Your task to perform on an android device: change timer sound Image 0: 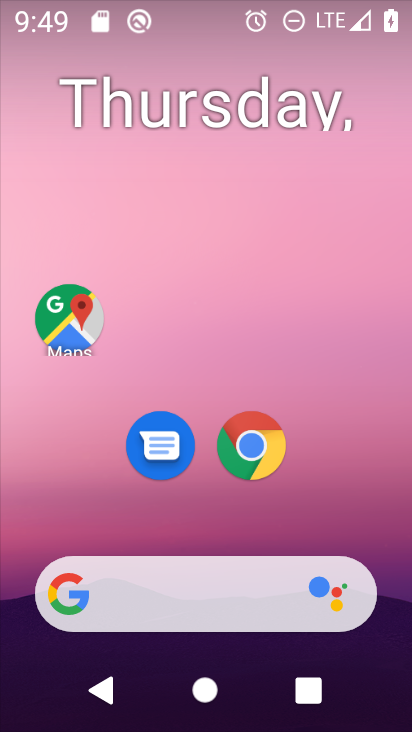
Step 0: drag from (360, 509) to (329, 343)
Your task to perform on an android device: change timer sound Image 1: 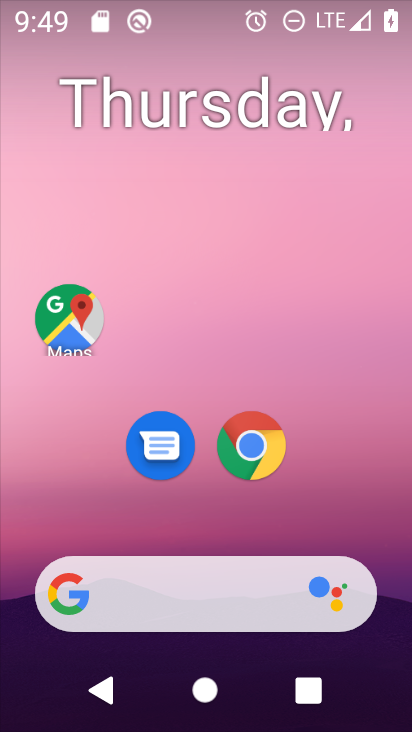
Step 1: drag from (393, 519) to (336, 108)
Your task to perform on an android device: change timer sound Image 2: 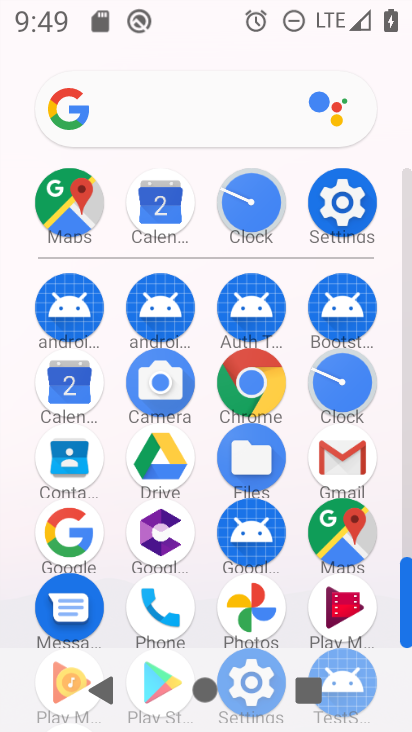
Step 2: click (336, 377)
Your task to perform on an android device: change timer sound Image 3: 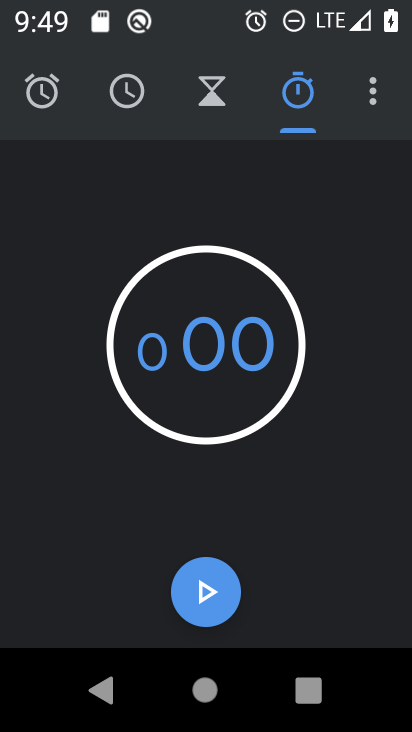
Step 3: click (363, 88)
Your task to perform on an android device: change timer sound Image 4: 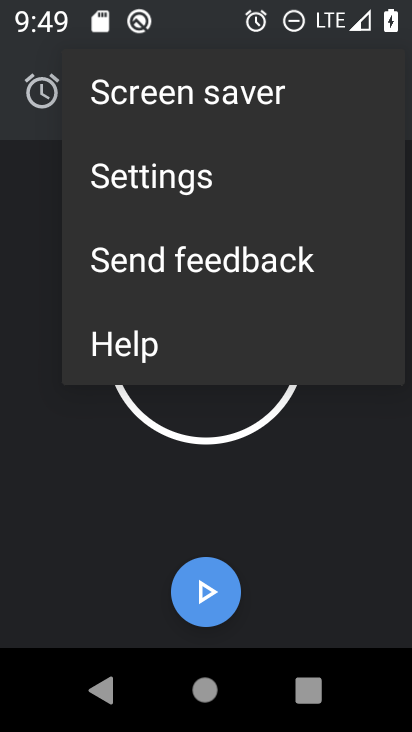
Step 4: click (235, 185)
Your task to perform on an android device: change timer sound Image 5: 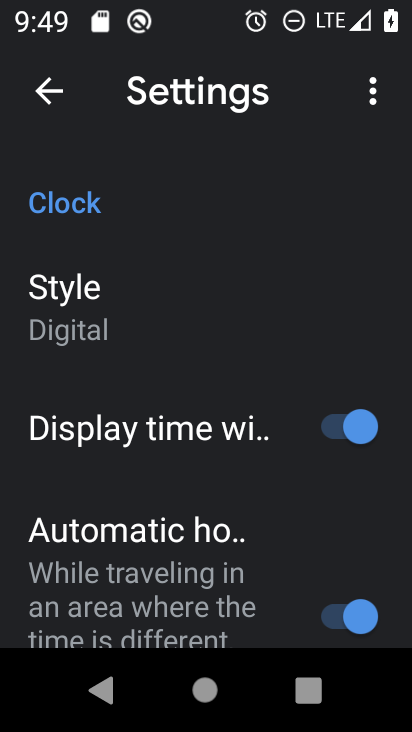
Step 5: drag from (147, 566) to (191, 13)
Your task to perform on an android device: change timer sound Image 6: 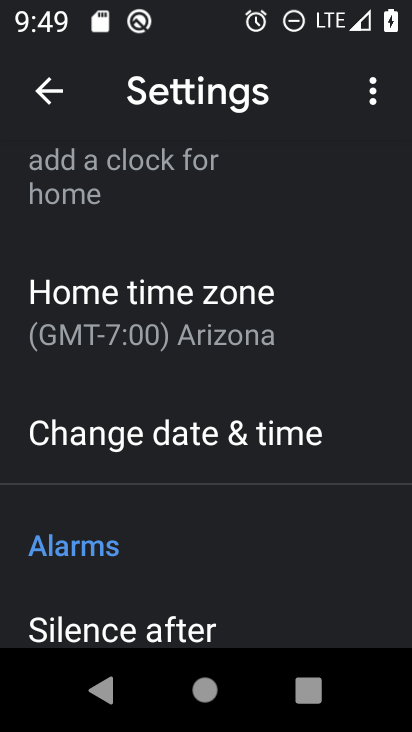
Step 6: drag from (143, 590) to (125, 137)
Your task to perform on an android device: change timer sound Image 7: 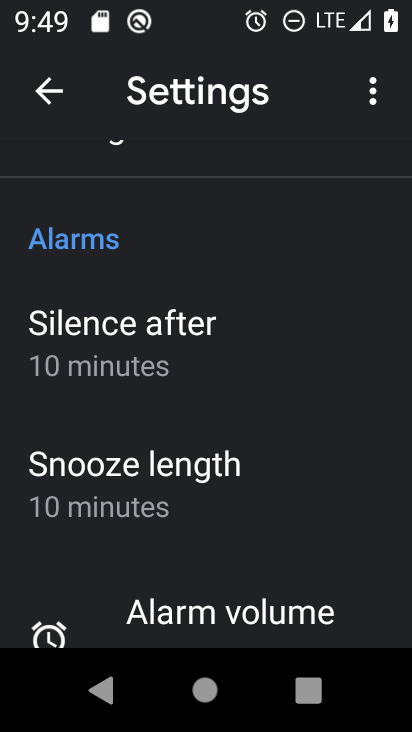
Step 7: drag from (202, 548) to (148, 53)
Your task to perform on an android device: change timer sound Image 8: 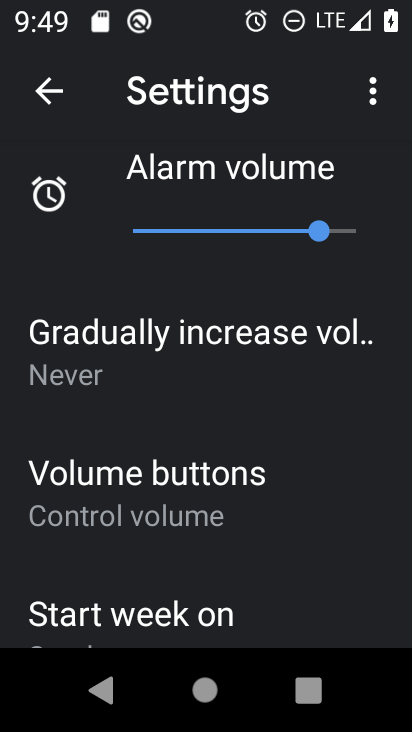
Step 8: click (209, 387)
Your task to perform on an android device: change timer sound Image 9: 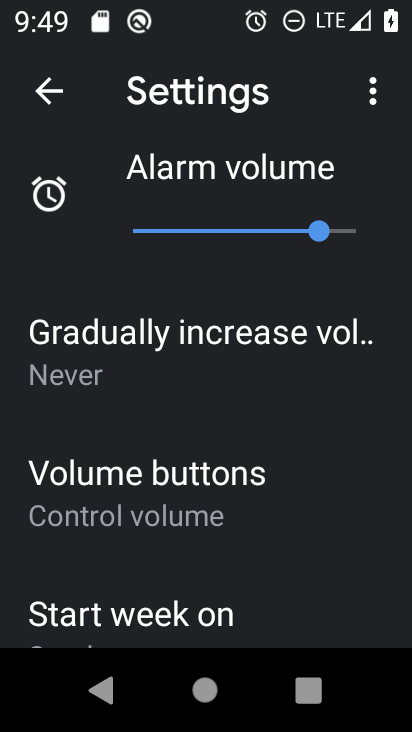
Step 9: drag from (209, 293) to (185, 115)
Your task to perform on an android device: change timer sound Image 10: 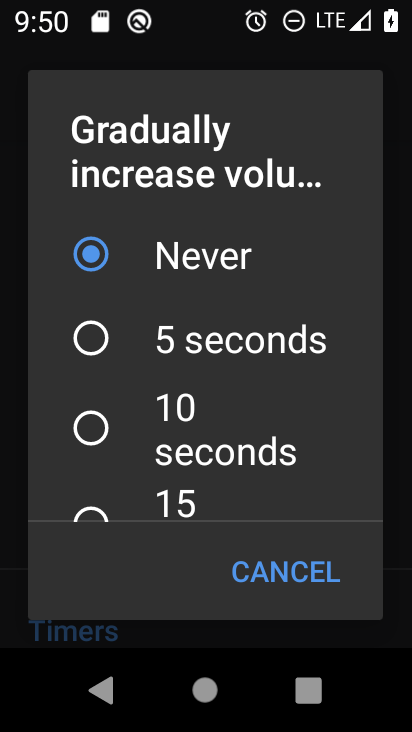
Step 10: press back button
Your task to perform on an android device: change timer sound Image 11: 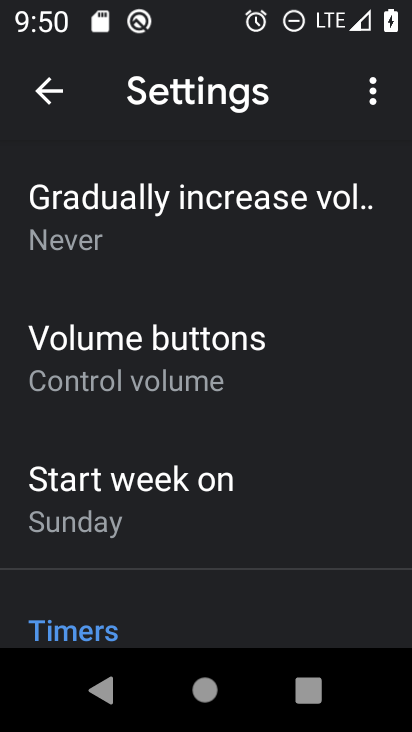
Step 11: click (120, 585)
Your task to perform on an android device: change timer sound Image 12: 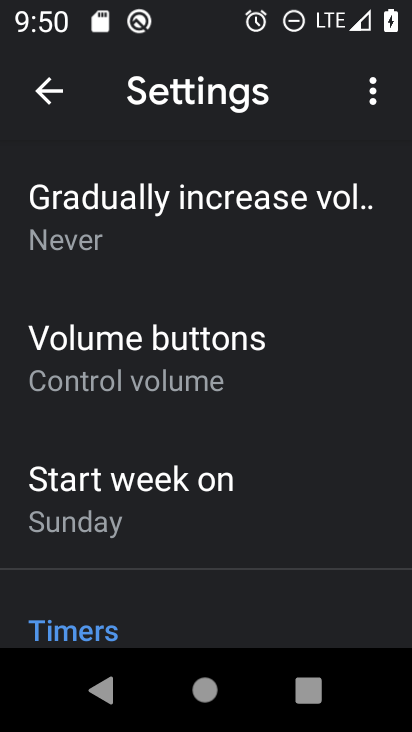
Step 12: drag from (153, 412) to (123, 133)
Your task to perform on an android device: change timer sound Image 13: 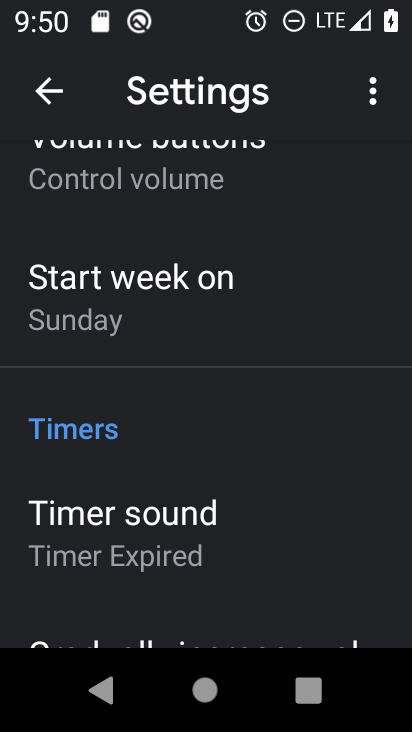
Step 13: click (148, 529)
Your task to perform on an android device: change timer sound Image 14: 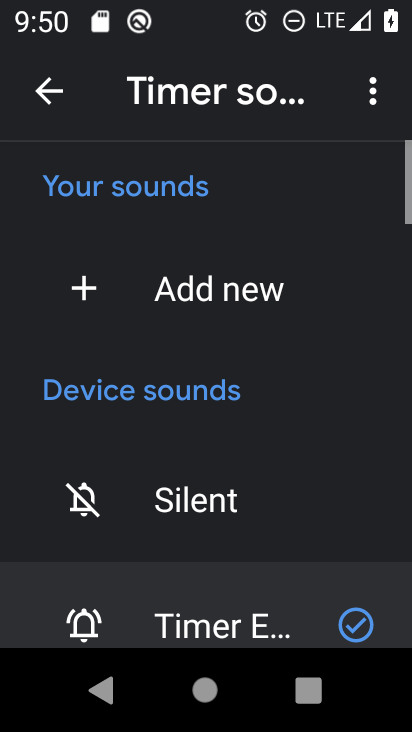
Step 14: click (209, 501)
Your task to perform on an android device: change timer sound Image 15: 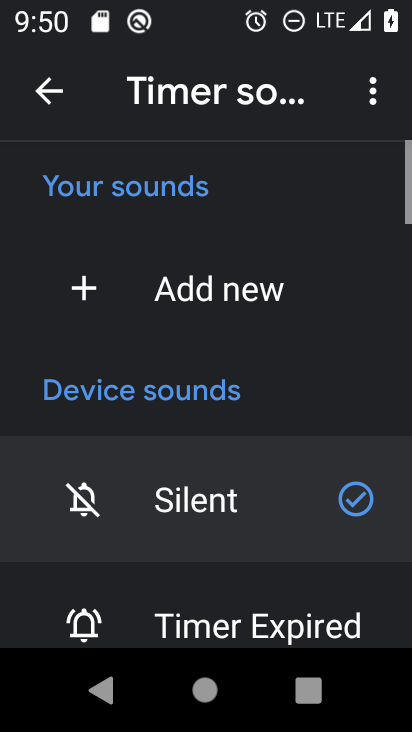
Step 15: task complete